Your task to perform on an android device: toggle location history Image 0: 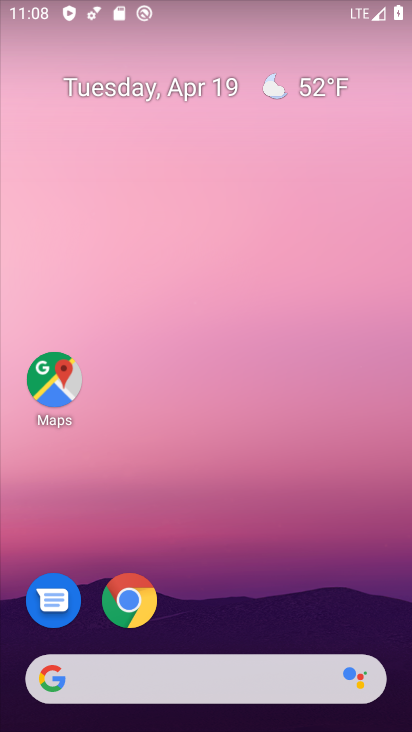
Step 0: drag from (196, 644) to (138, 36)
Your task to perform on an android device: toggle location history Image 1: 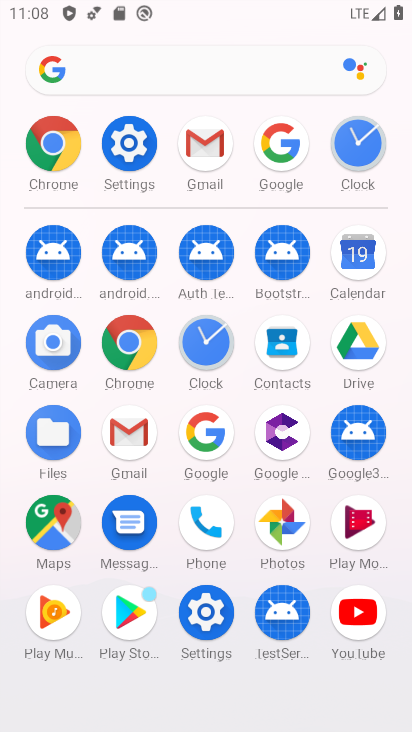
Step 1: click (123, 151)
Your task to perform on an android device: toggle location history Image 2: 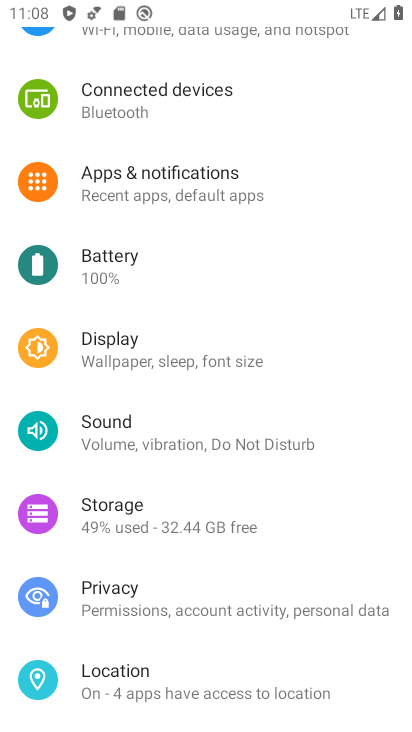
Step 2: drag from (166, 295) to (155, 172)
Your task to perform on an android device: toggle location history Image 3: 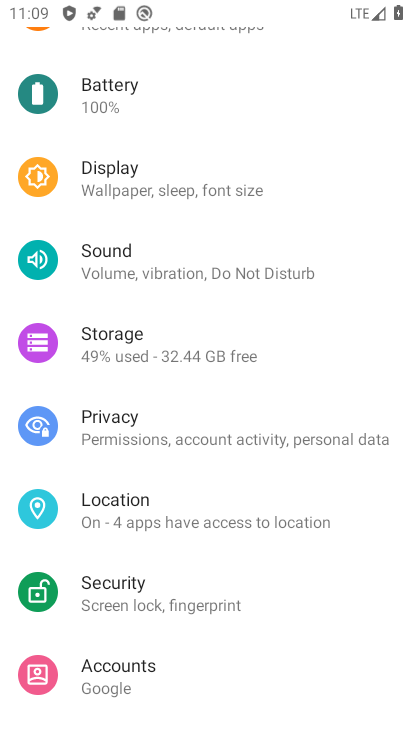
Step 3: click (169, 503)
Your task to perform on an android device: toggle location history Image 4: 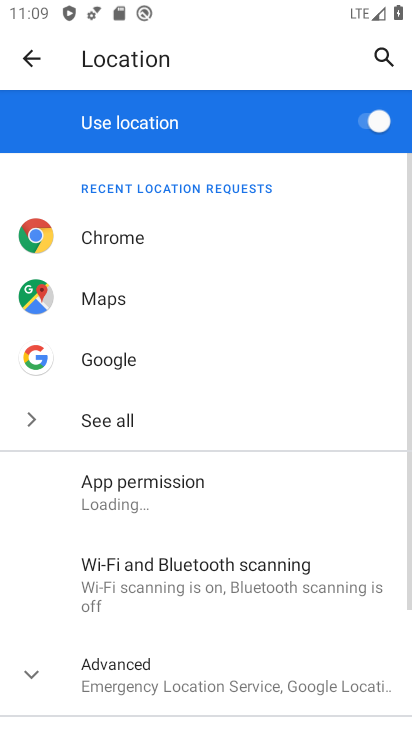
Step 4: click (169, 660)
Your task to perform on an android device: toggle location history Image 5: 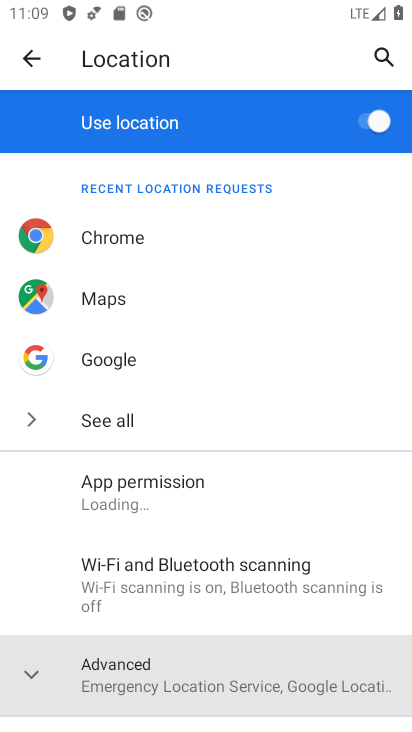
Step 5: drag from (169, 660) to (114, 90)
Your task to perform on an android device: toggle location history Image 6: 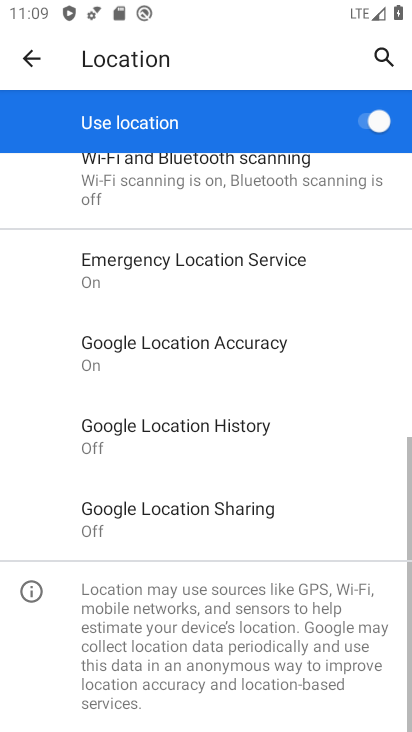
Step 6: click (159, 425)
Your task to perform on an android device: toggle location history Image 7: 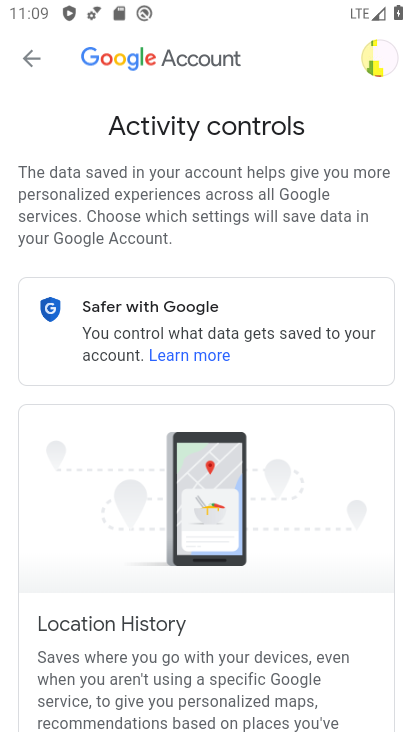
Step 7: drag from (239, 591) to (175, 143)
Your task to perform on an android device: toggle location history Image 8: 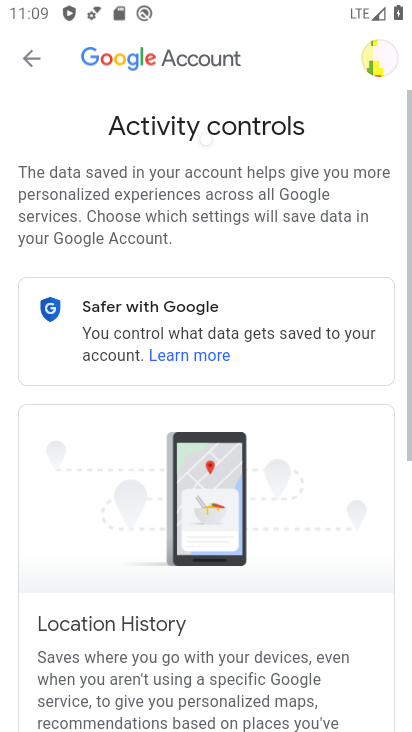
Step 8: click (306, 354)
Your task to perform on an android device: toggle location history Image 9: 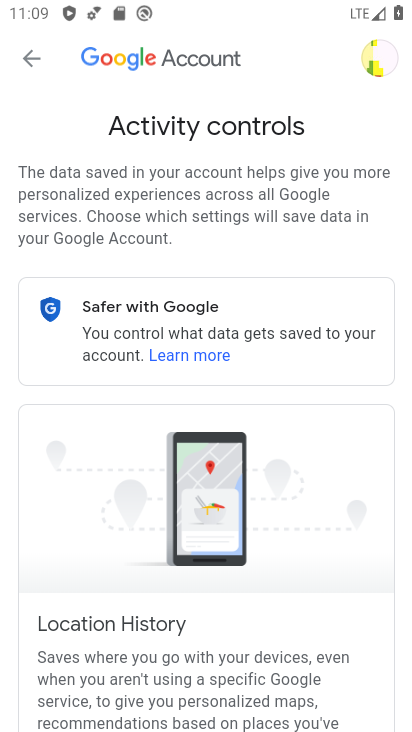
Step 9: drag from (334, 570) to (292, 61)
Your task to perform on an android device: toggle location history Image 10: 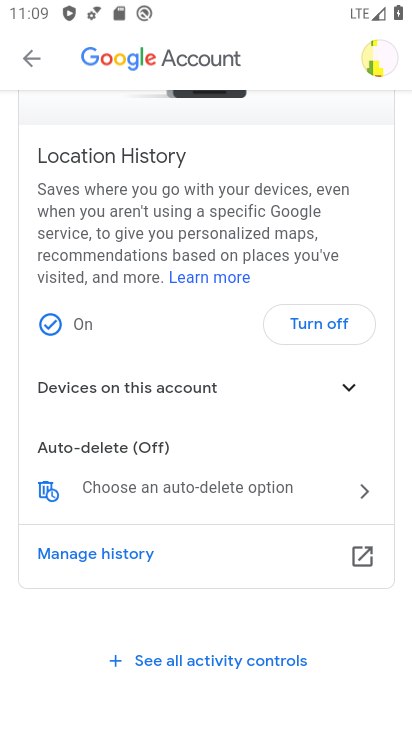
Step 10: click (302, 326)
Your task to perform on an android device: toggle location history Image 11: 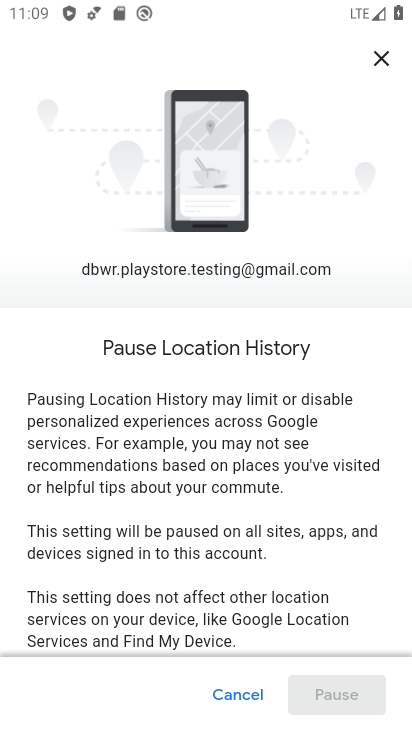
Step 11: drag from (200, 572) to (197, 5)
Your task to perform on an android device: toggle location history Image 12: 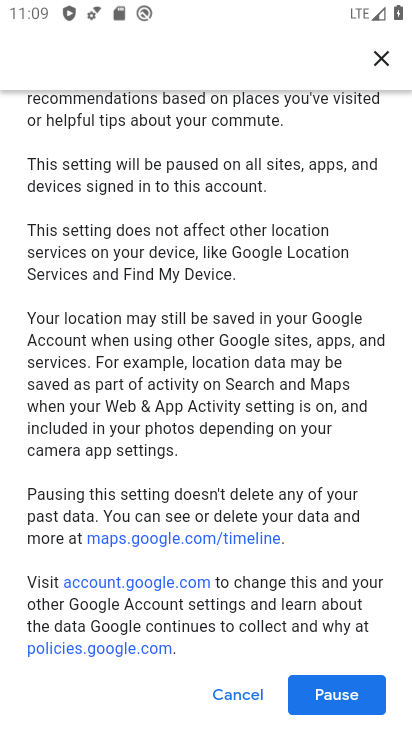
Step 12: click (320, 686)
Your task to perform on an android device: toggle location history Image 13: 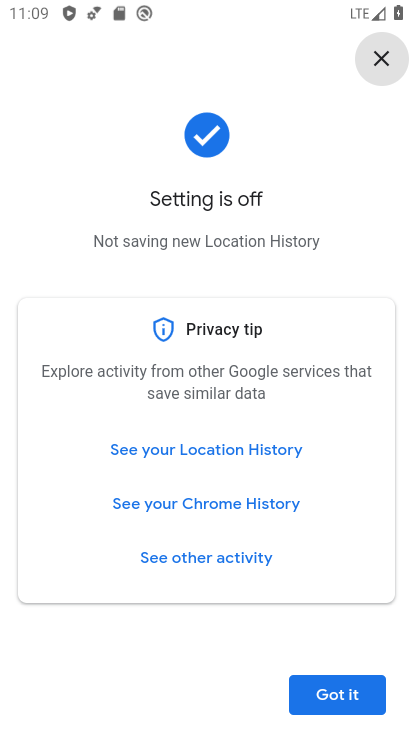
Step 13: click (335, 703)
Your task to perform on an android device: toggle location history Image 14: 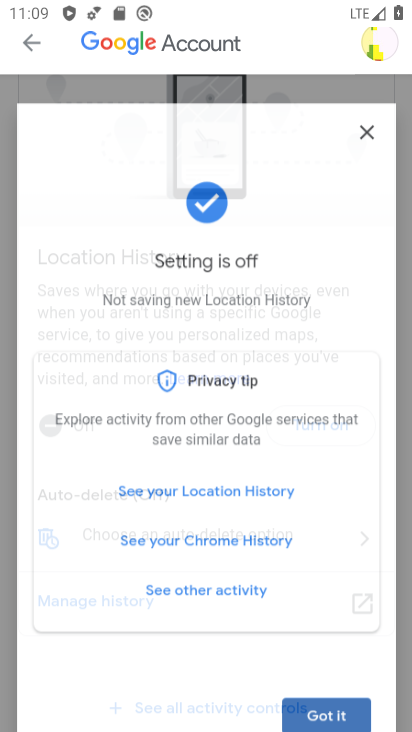
Step 14: task complete